Your task to perform on an android device: Open the web browser Image 0: 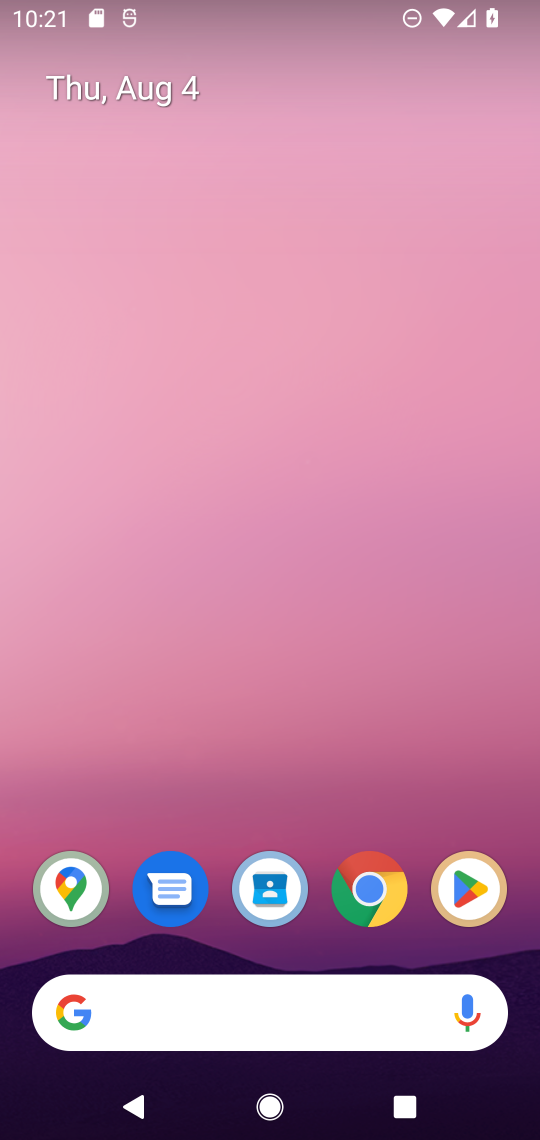
Step 0: press home button
Your task to perform on an android device: Open the web browser Image 1: 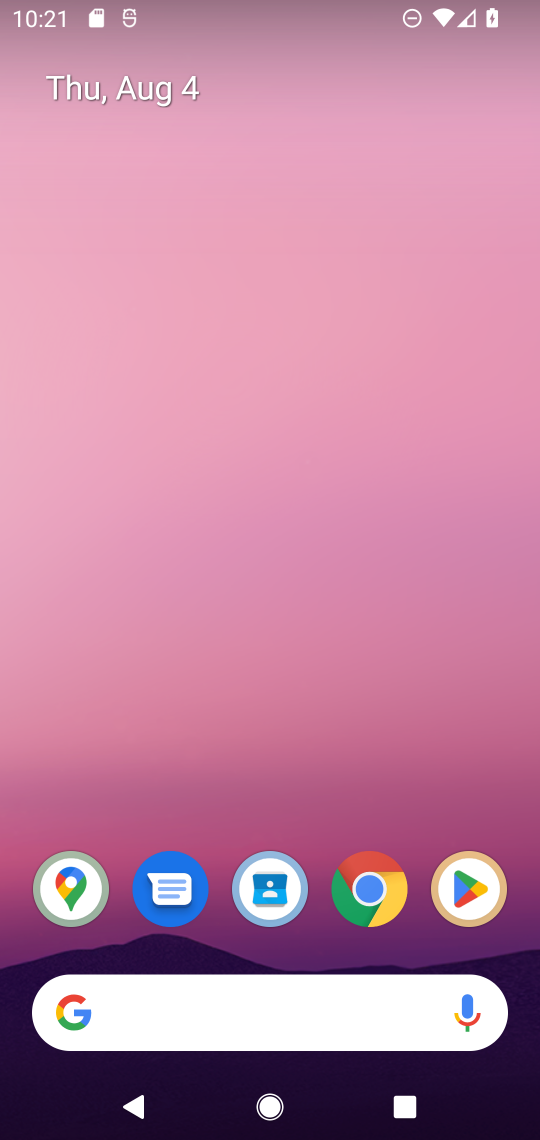
Step 1: drag from (401, 808) to (436, 345)
Your task to perform on an android device: Open the web browser Image 2: 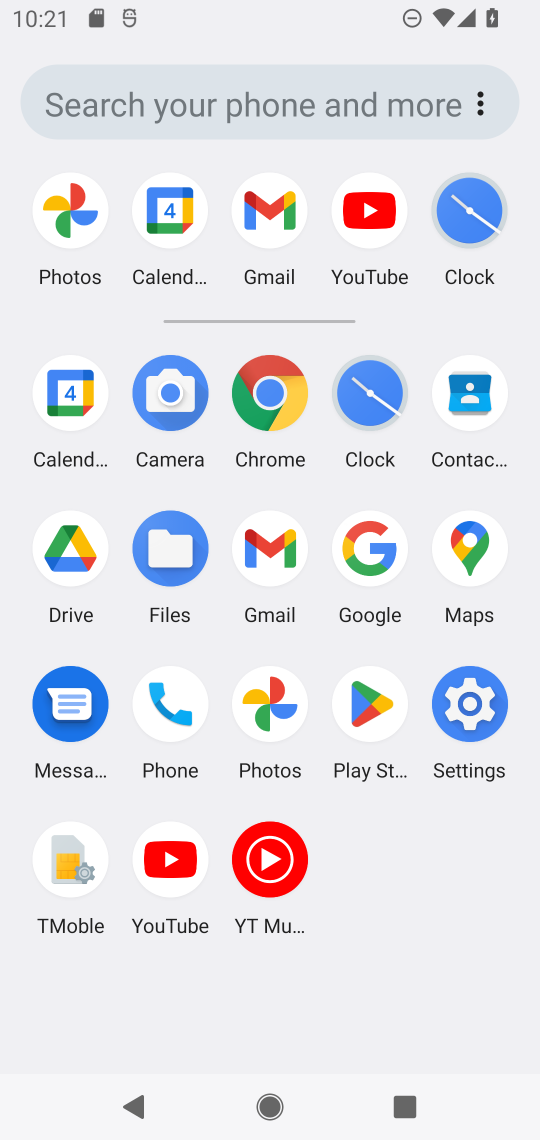
Step 2: click (265, 375)
Your task to perform on an android device: Open the web browser Image 3: 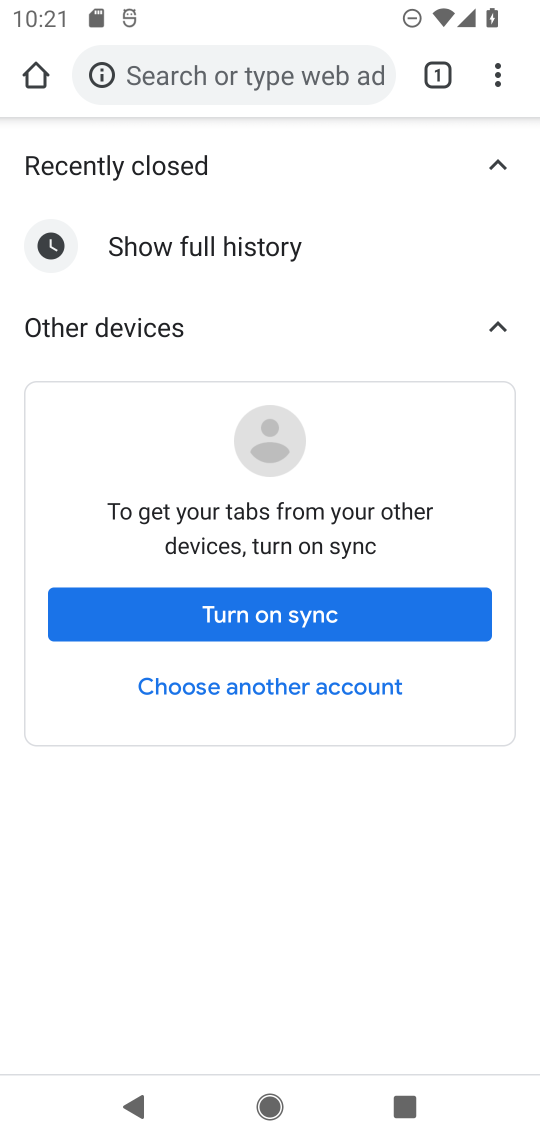
Step 3: task complete